Your task to perform on an android device: Open Google Maps and go to "Timeline" Image 0: 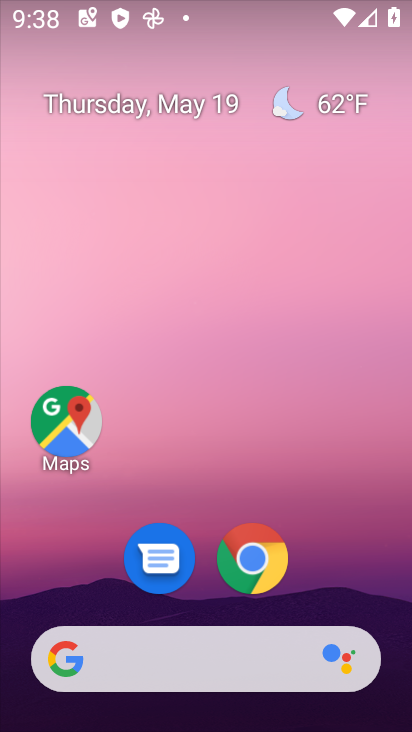
Step 0: click (66, 423)
Your task to perform on an android device: Open Google Maps and go to "Timeline" Image 1: 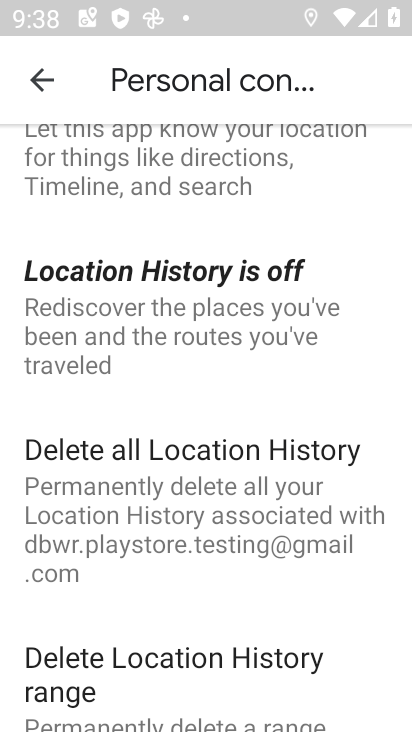
Step 1: click (36, 88)
Your task to perform on an android device: Open Google Maps and go to "Timeline" Image 2: 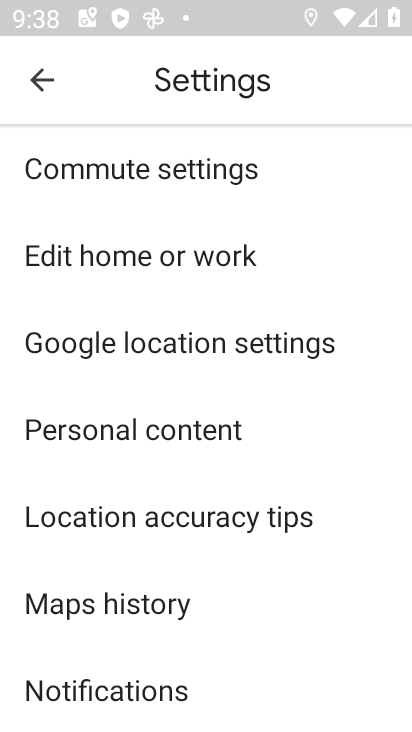
Step 2: click (36, 88)
Your task to perform on an android device: Open Google Maps and go to "Timeline" Image 3: 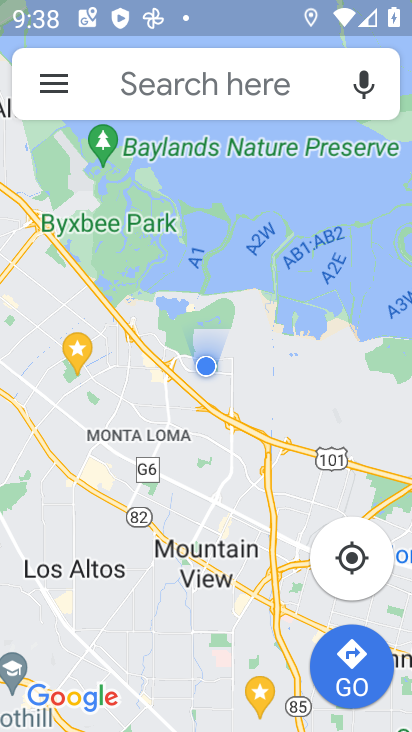
Step 3: click (54, 79)
Your task to perform on an android device: Open Google Maps and go to "Timeline" Image 4: 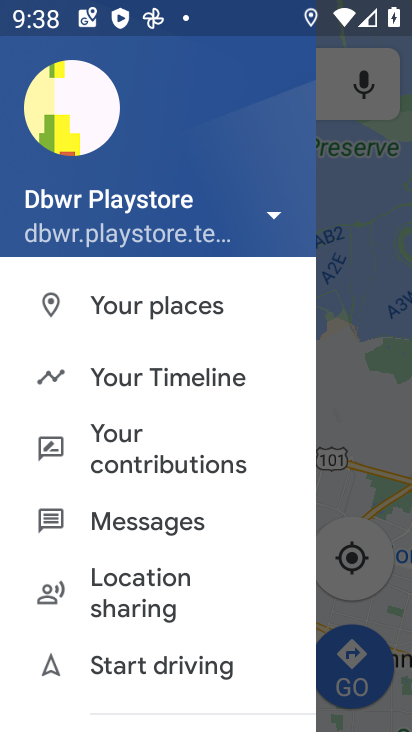
Step 4: click (148, 371)
Your task to perform on an android device: Open Google Maps and go to "Timeline" Image 5: 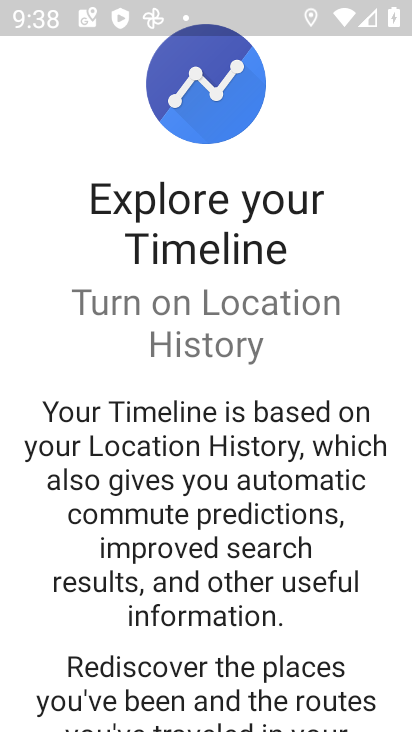
Step 5: drag from (209, 544) to (211, 380)
Your task to perform on an android device: Open Google Maps and go to "Timeline" Image 6: 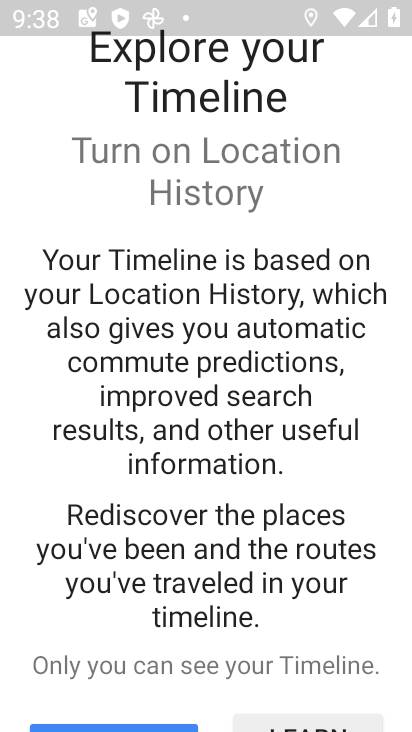
Step 6: drag from (199, 562) to (238, 362)
Your task to perform on an android device: Open Google Maps and go to "Timeline" Image 7: 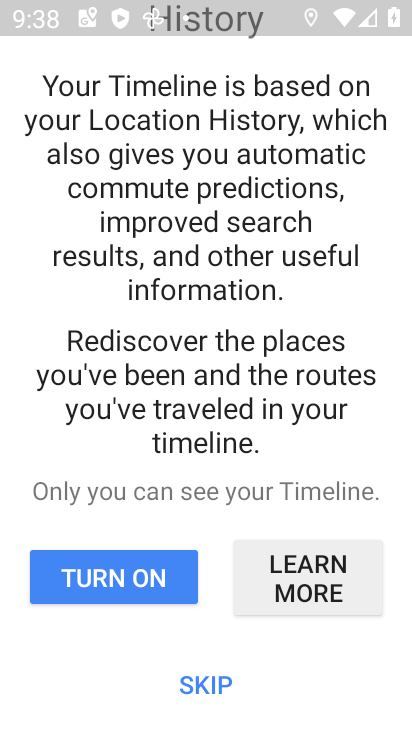
Step 7: click (207, 686)
Your task to perform on an android device: Open Google Maps and go to "Timeline" Image 8: 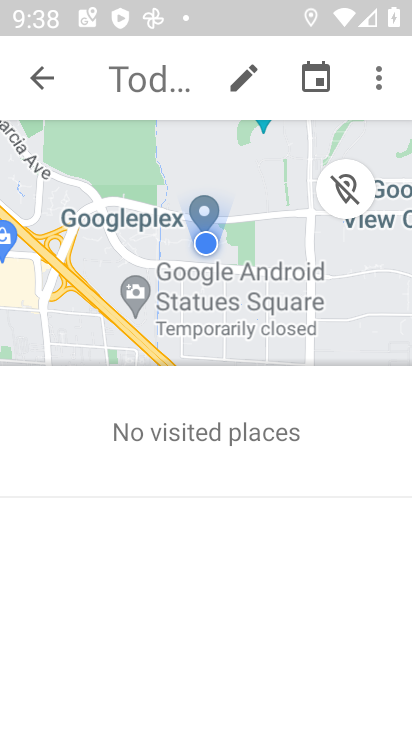
Step 8: task complete